Your task to perform on an android device: Open notification settings Image 0: 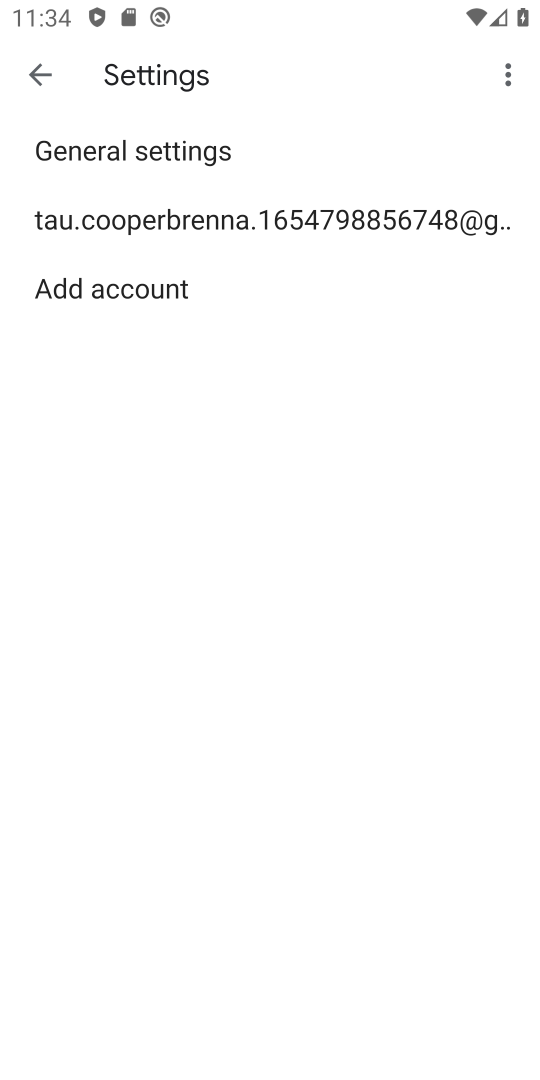
Step 0: press home button
Your task to perform on an android device: Open notification settings Image 1: 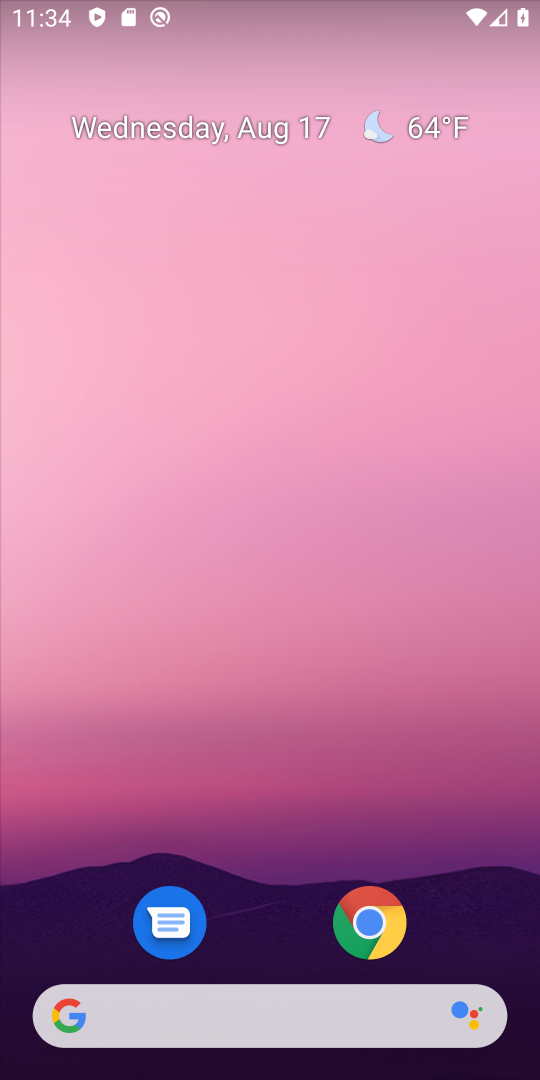
Step 1: drag from (264, 873) to (249, 309)
Your task to perform on an android device: Open notification settings Image 2: 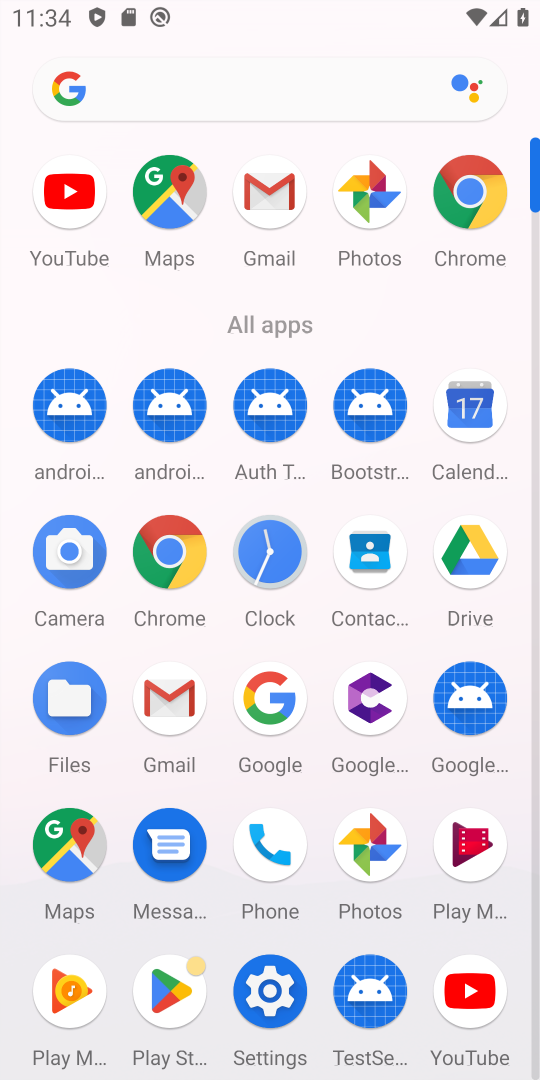
Step 2: click (273, 989)
Your task to perform on an android device: Open notification settings Image 3: 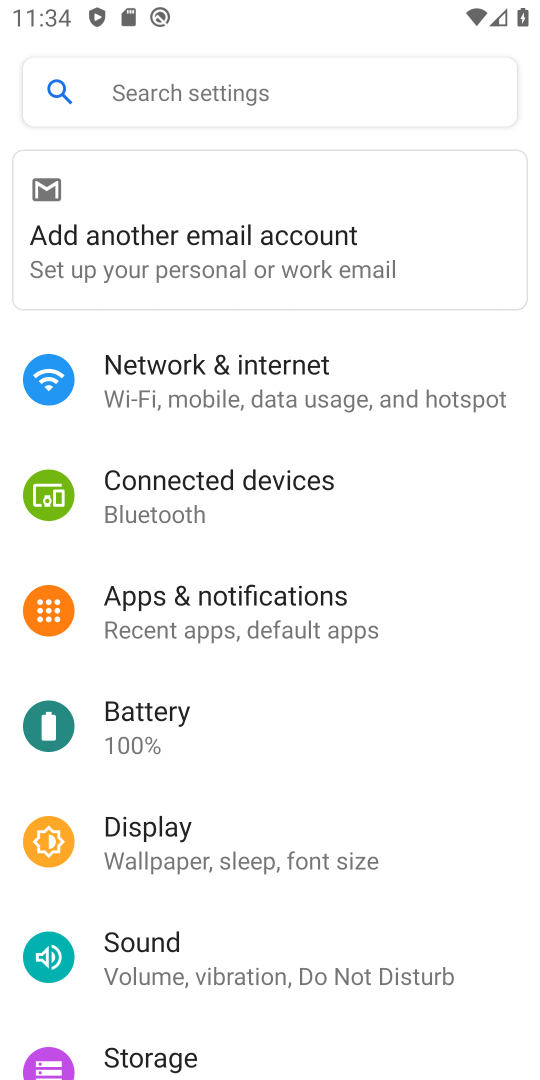
Step 3: click (213, 596)
Your task to perform on an android device: Open notification settings Image 4: 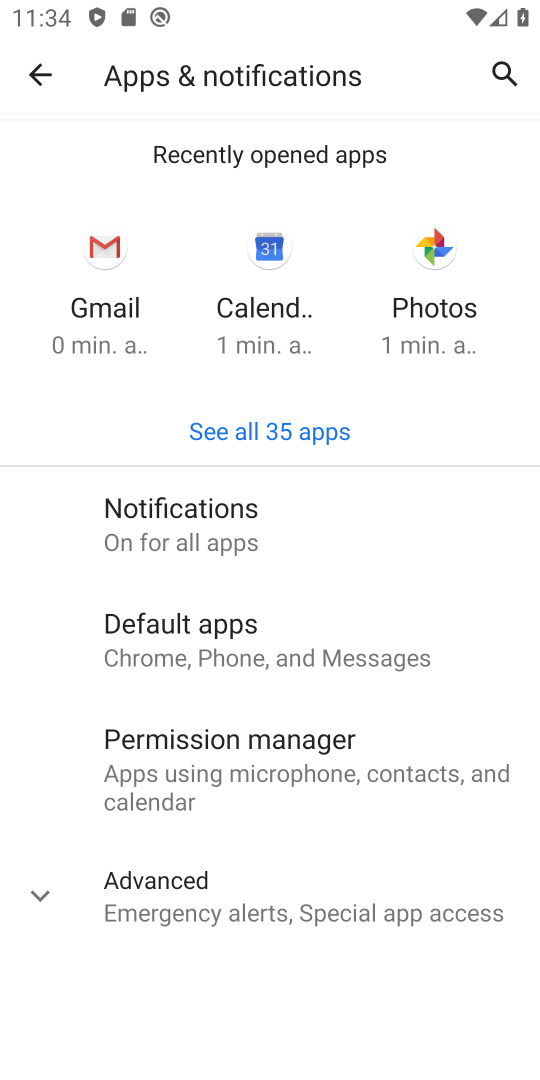
Step 4: task complete